Your task to perform on an android device: manage bookmarks in the chrome app Image 0: 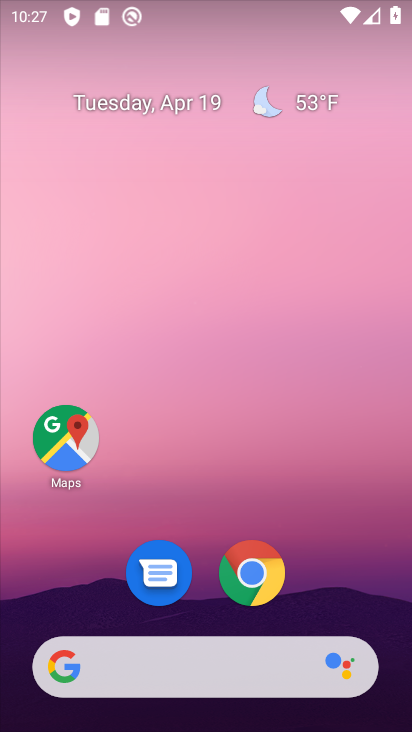
Step 0: click (252, 572)
Your task to perform on an android device: manage bookmarks in the chrome app Image 1: 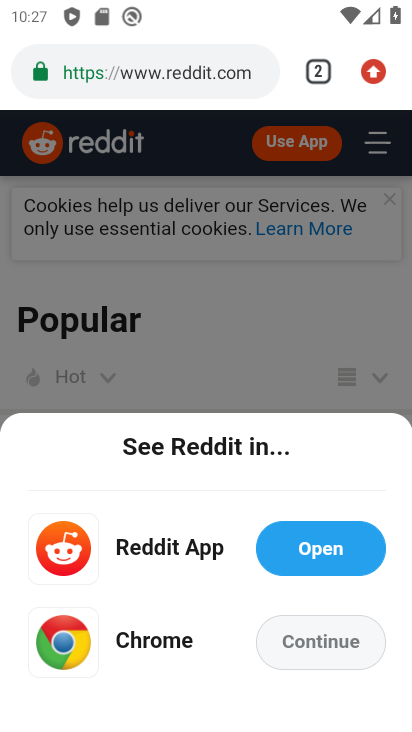
Step 1: click (372, 65)
Your task to perform on an android device: manage bookmarks in the chrome app Image 2: 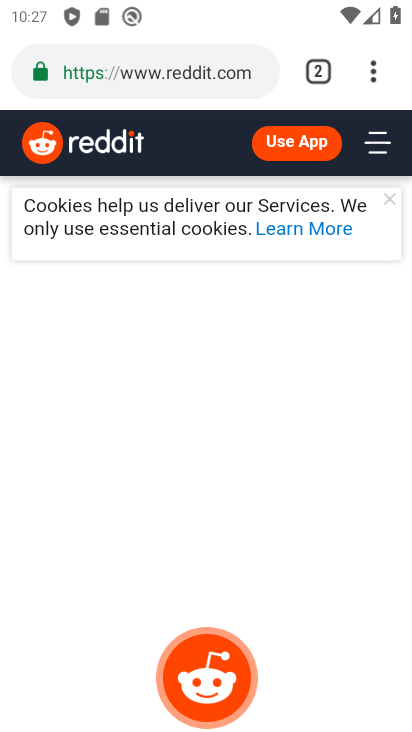
Step 2: click (372, 69)
Your task to perform on an android device: manage bookmarks in the chrome app Image 3: 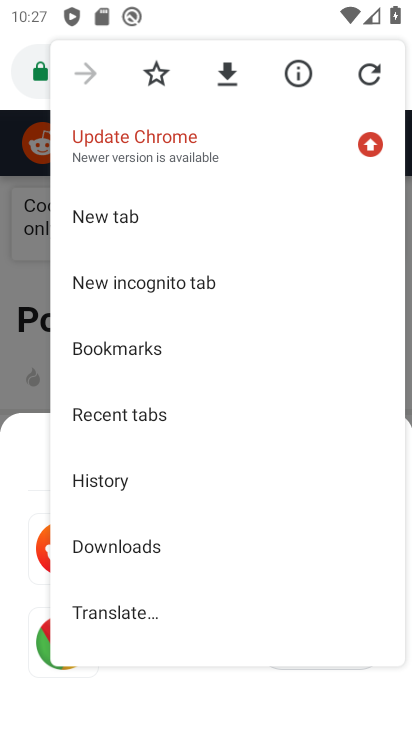
Step 3: drag from (186, 589) to (176, 223)
Your task to perform on an android device: manage bookmarks in the chrome app Image 4: 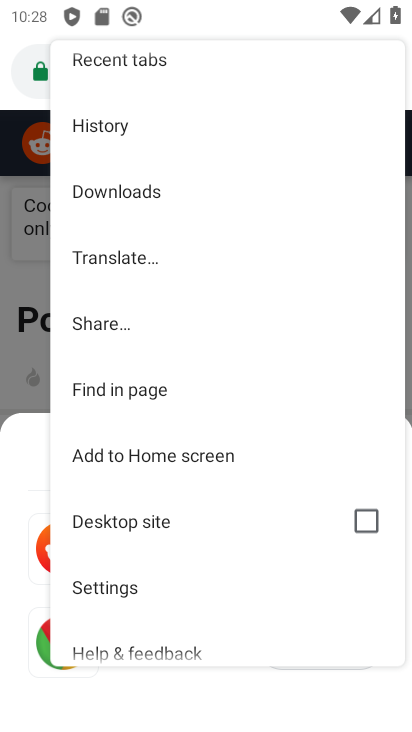
Step 4: drag from (228, 170) to (221, 498)
Your task to perform on an android device: manage bookmarks in the chrome app Image 5: 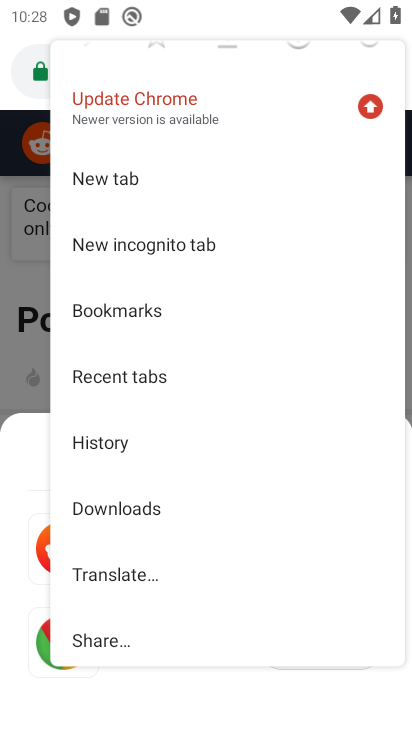
Step 5: click (127, 311)
Your task to perform on an android device: manage bookmarks in the chrome app Image 6: 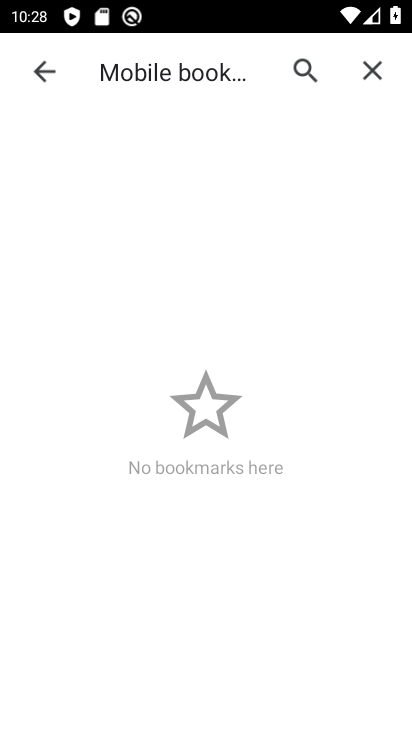
Step 6: task complete